Your task to perform on an android device: Open display settings Image 0: 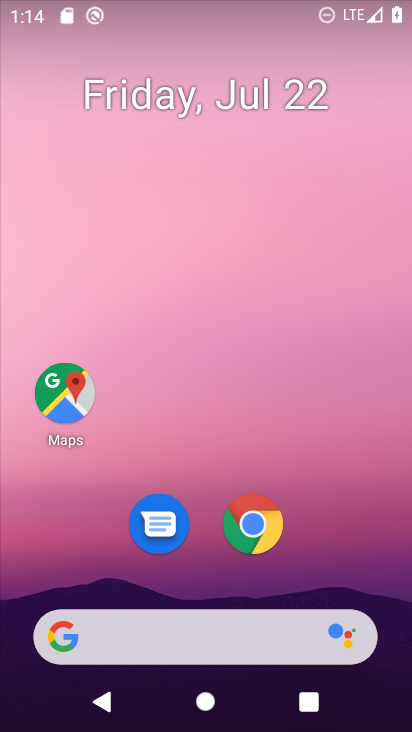
Step 0: drag from (326, 546) to (369, 59)
Your task to perform on an android device: Open display settings Image 1: 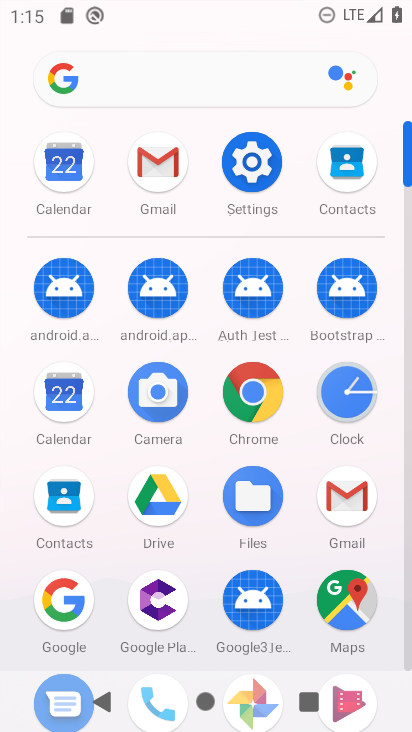
Step 1: click (259, 154)
Your task to perform on an android device: Open display settings Image 2: 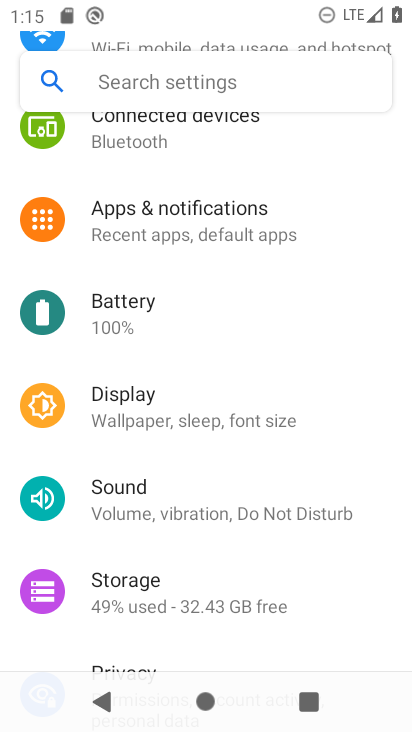
Step 2: click (157, 399)
Your task to perform on an android device: Open display settings Image 3: 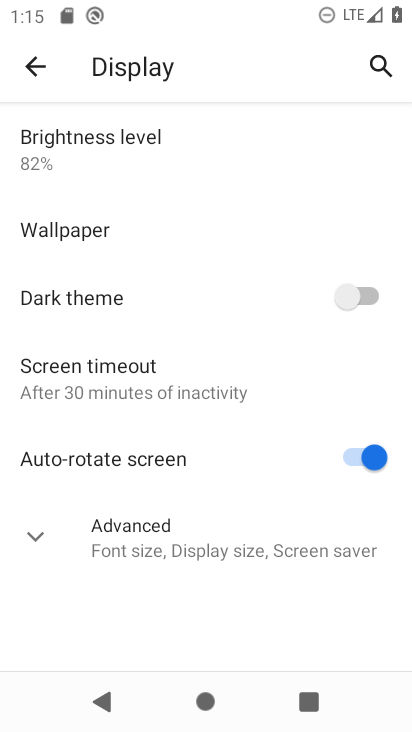
Step 3: click (40, 532)
Your task to perform on an android device: Open display settings Image 4: 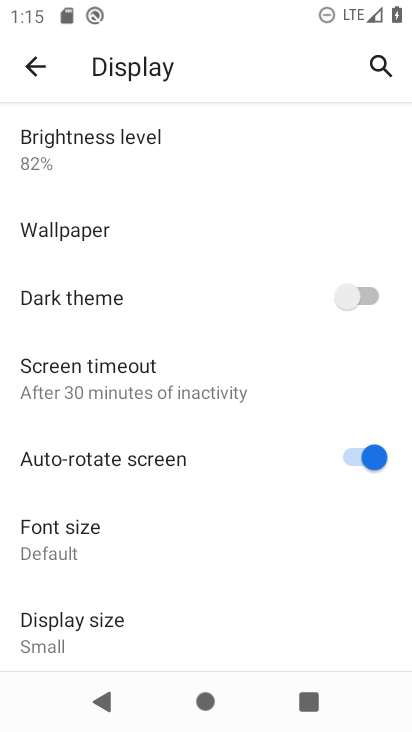
Step 4: task complete